Your task to perform on an android device: toggle improve location accuracy Image 0: 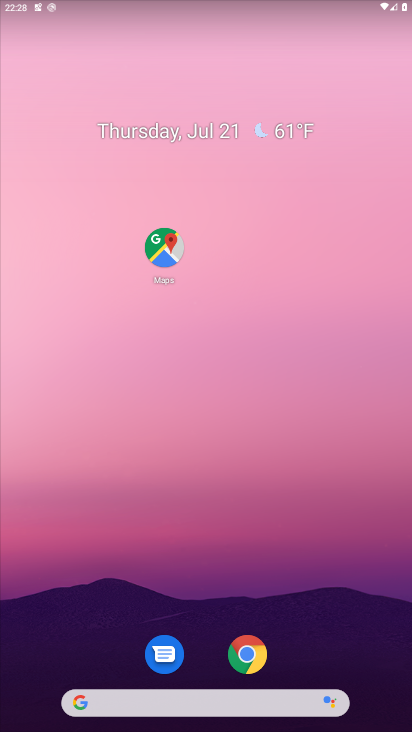
Step 0: drag from (108, 539) to (292, 36)
Your task to perform on an android device: toggle improve location accuracy Image 1: 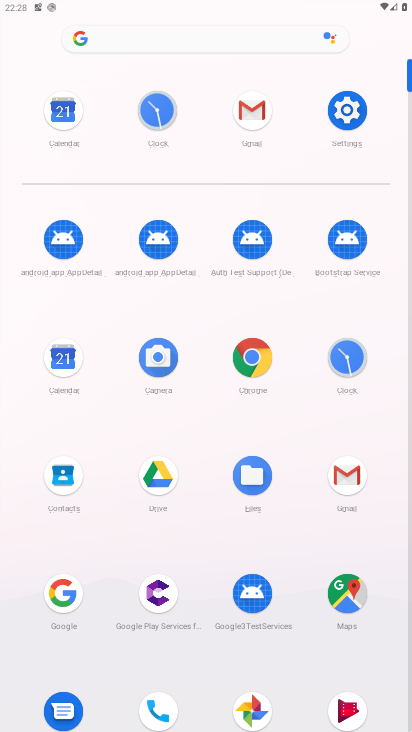
Step 1: drag from (184, 642) to (233, 494)
Your task to perform on an android device: toggle improve location accuracy Image 2: 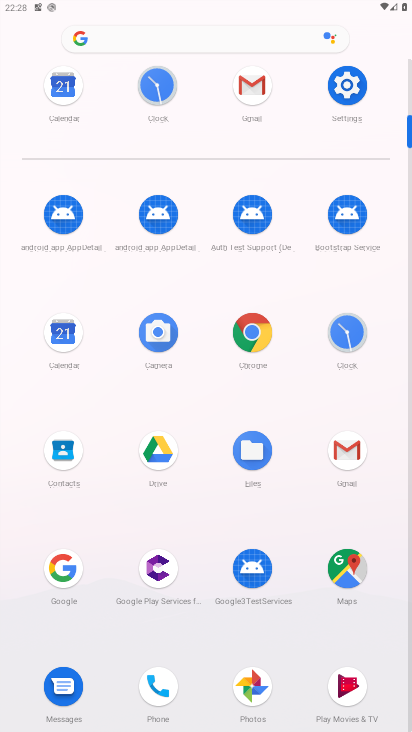
Step 2: click (375, 619)
Your task to perform on an android device: toggle improve location accuracy Image 3: 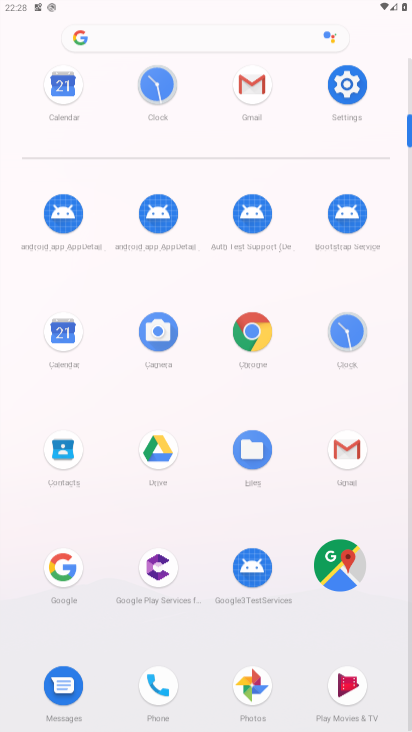
Step 3: click (356, 605)
Your task to perform on an android device: toggle improve location accuracy Image 4: 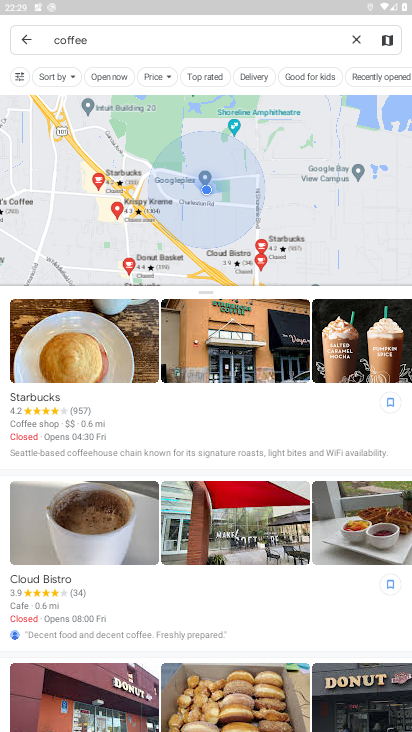
Step 4: press home button
Your task to perform on an android device: toggle improve location accuracy Image 5: 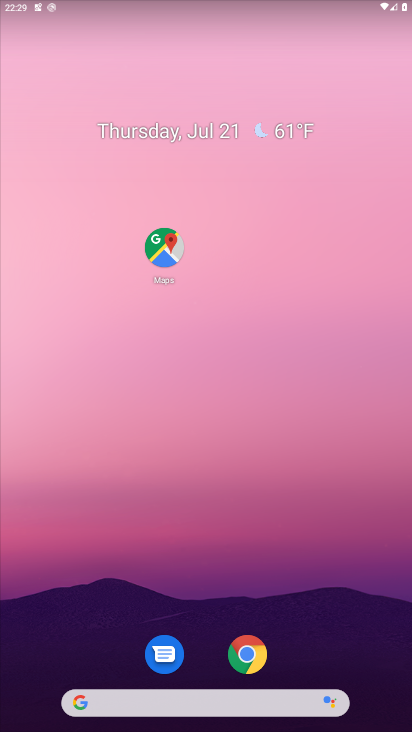
Step 5: drag from (11, 704) to (207, 3)
Your task to perform on an android device: toggle improve location accuracy Image 6: 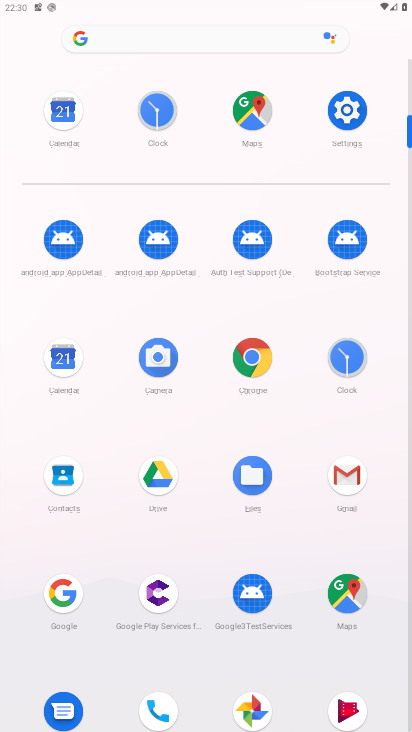
Step 6: click (341, 117)
Your task to perform on an android device: toggle improve location accuracy Image 7: 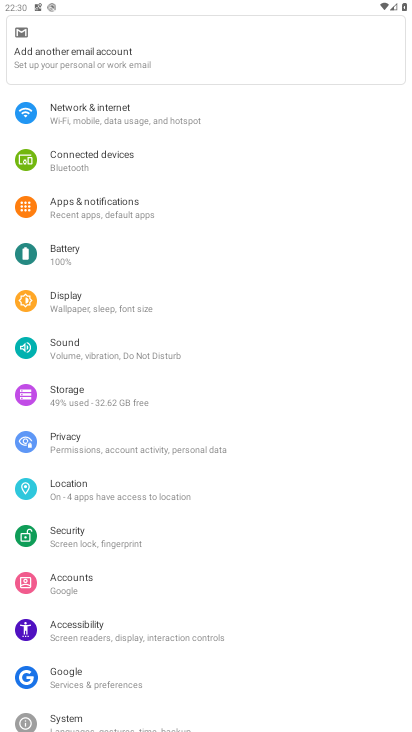
Step 7: click (75, 490)
Your task to perform on an android device: toggle improve location accuracy Image 8: 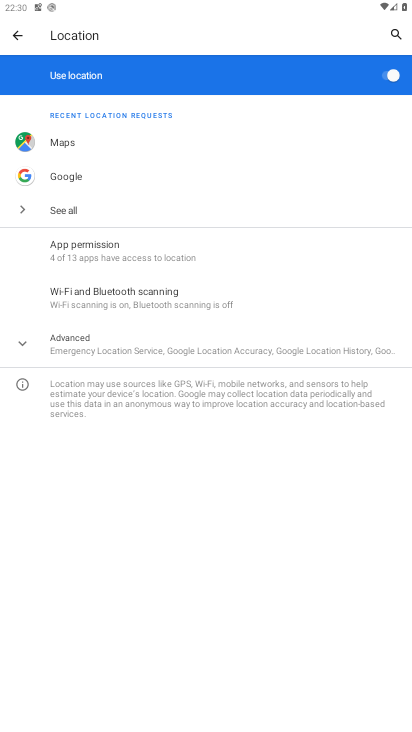
Step 8: click (127, 303)
Your task to perform on an android device: toggle improve location accuracy Image 9: 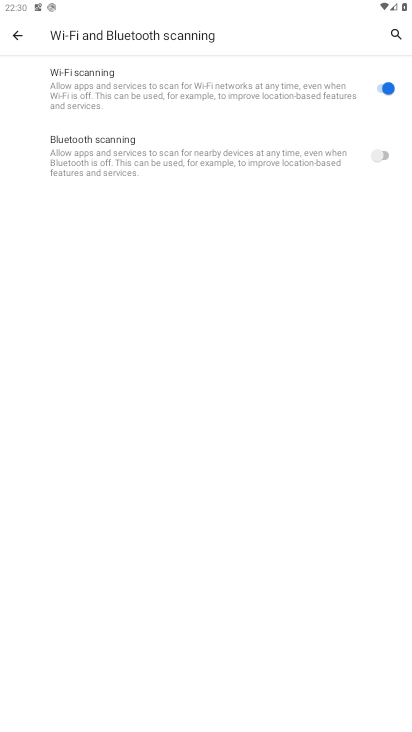
Step 9: click (10, 35)
Your task to perform on an android device: toggle improve location accuracy Image 10: 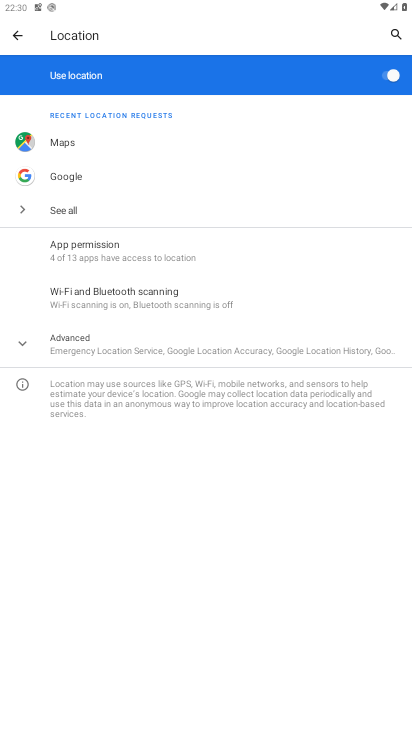
Step 10: click (114, 336)
Your task to perform on an android device: toggle improve location accuracy Image 11: 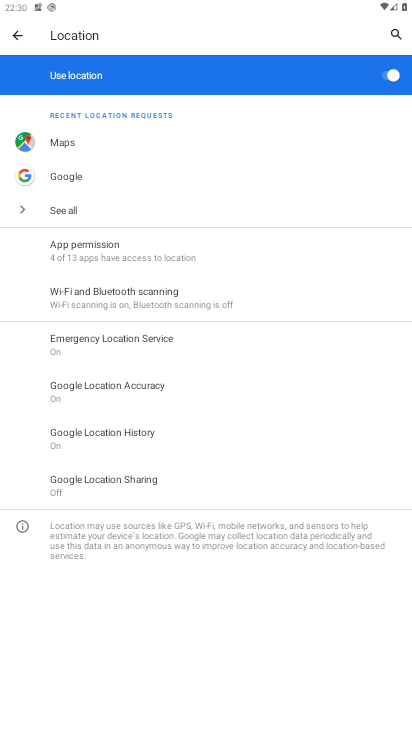
Step 11: task complete